Your task to perform on an android device: turn off wifi Image 0: 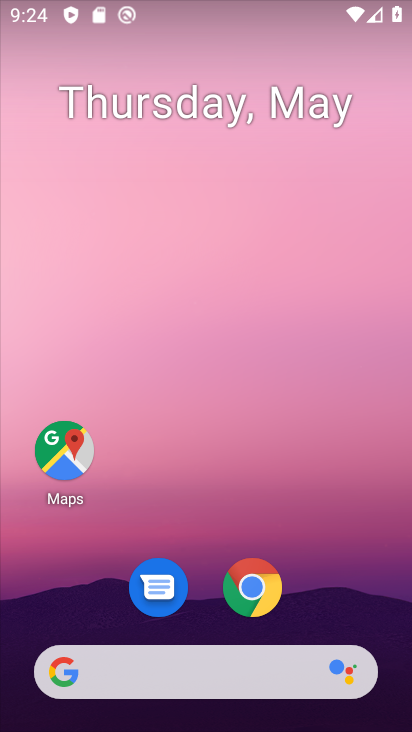
Step 0: drag from (353, 640) to (331, 8)
Your task to perform on an android device: turn off wifi Image 1: 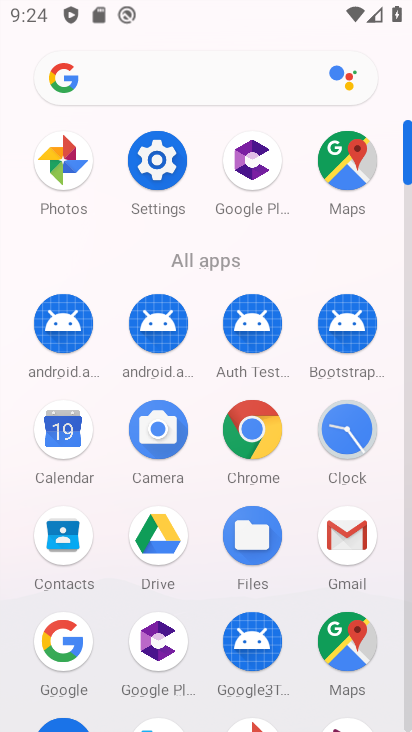
Step 1: click (151, 172)
Your task to perform on an android device: turn off wifi Image 2: 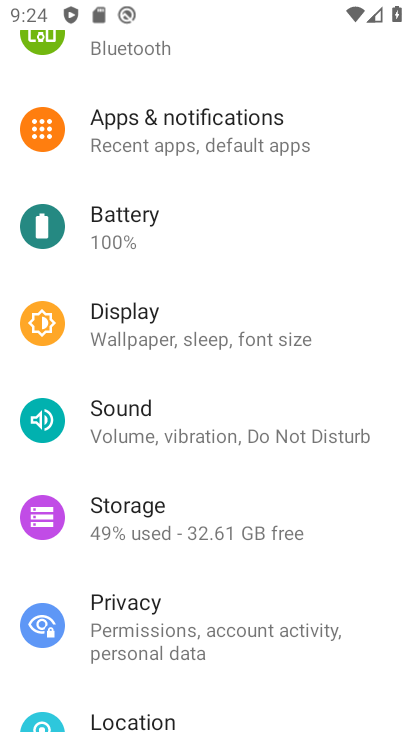
Step 2: drag from (251, 204) to (265, 536)
Your task to perform on an android device: turn off wifi Image 3: 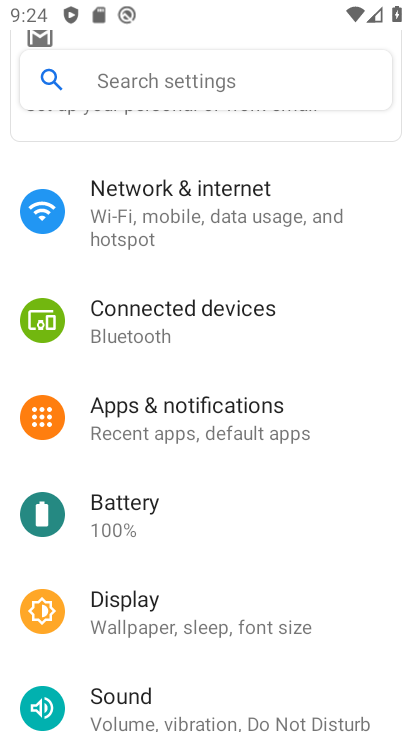
Step 3: click (148, 221)
Your task to perform on an android device: turn off wifi Image 4: 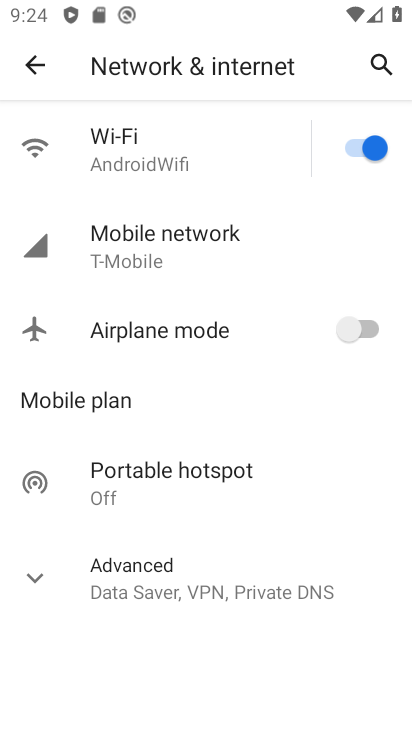
Step 4: click (378, 153)
Your task to perform on an android device: turn off wifi Image 5: 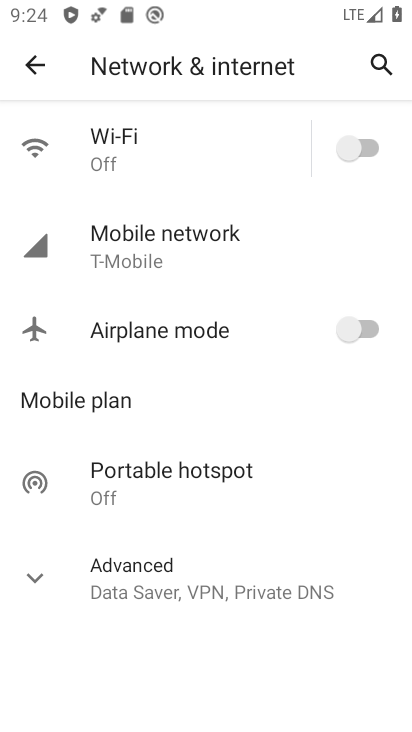
Step 5: task complete